Your task to perform on an android device: star an email in the gmail app Image 0: 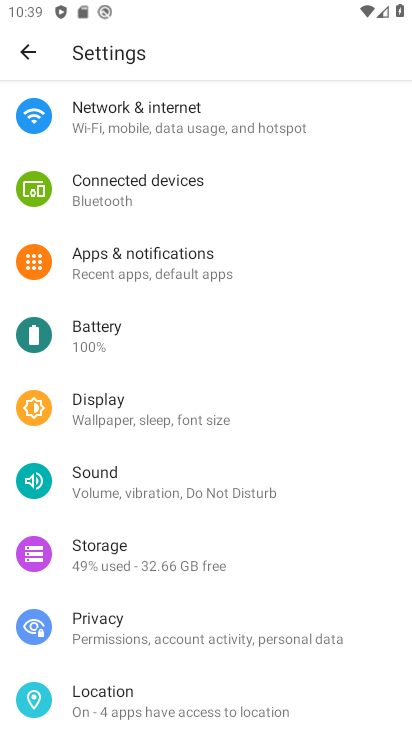
Step 0: press home button
Your task to perform on an android device: star an email in the gmail app Image 1: 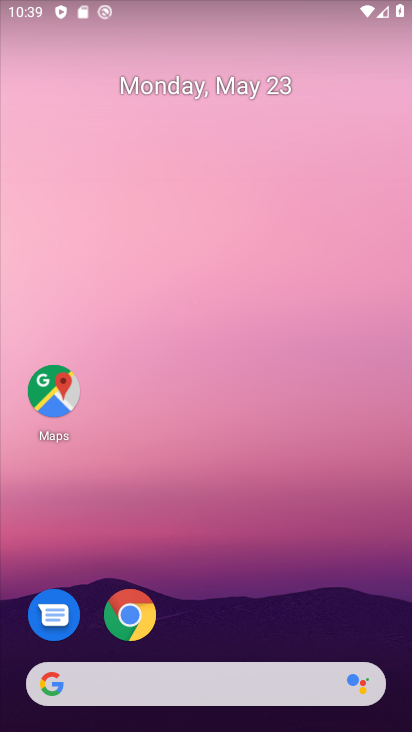
Step 1: drag from (223, 640) to (192, 88)
Your task to perform on an android device: star an email in the gmail app Image 2: 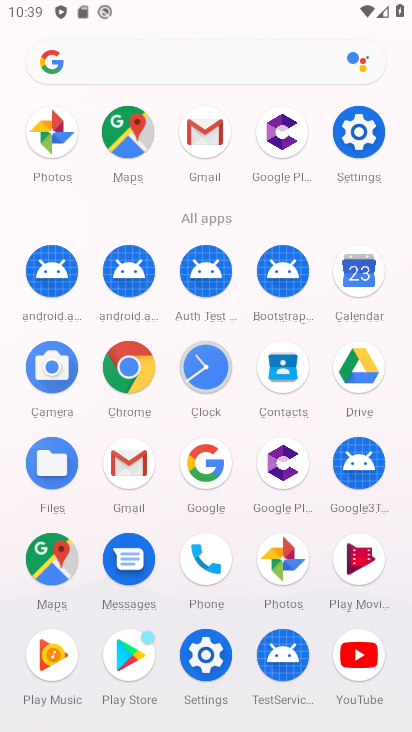
Step 2: click (220, 142)
Your task to perform on an android device: star an email in the gmail app Image 3: 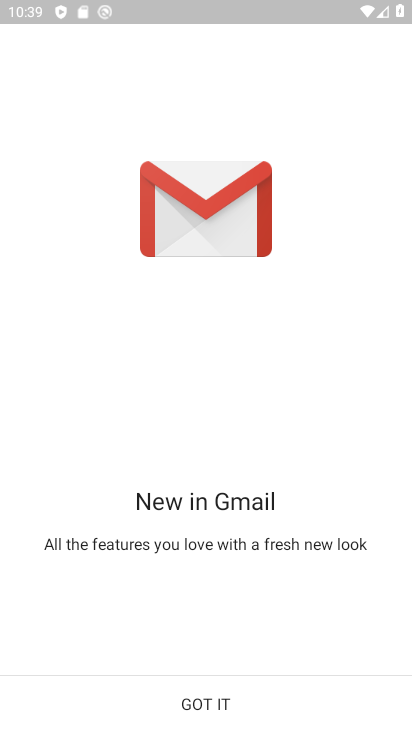
Step 3: click (201, 698)
Your task to perform on an android device: star an email in the gmail app Image 4: 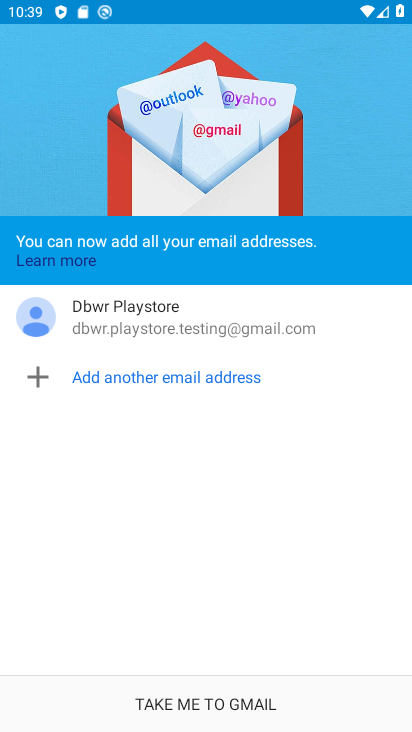
Step 4: click (201, 698)
Your task to perform on an android device: star an email in the gmail app Image 5: 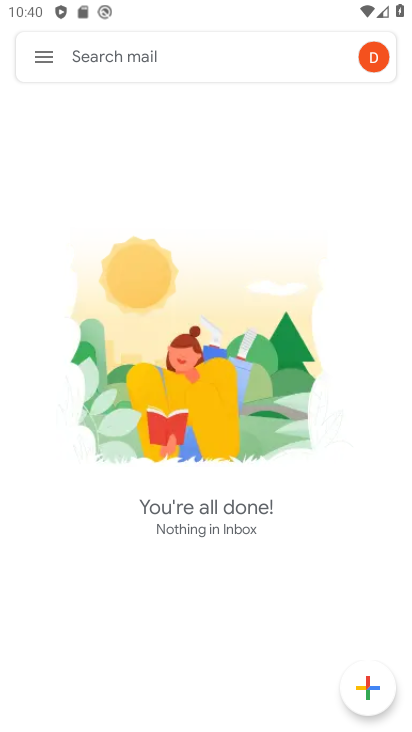
Step 5: task complete